Your task to perform on an android device: delete browsing data in the chrome app Image 0: 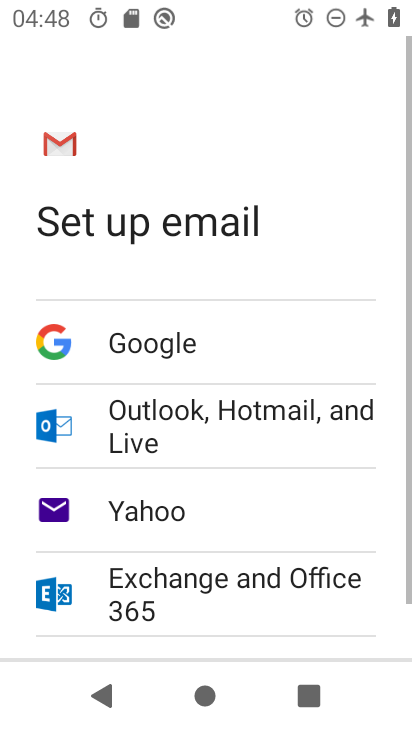
Step 0: press back button
Your task to perform on an android device: delete browsing data in the chrome app Image 1: 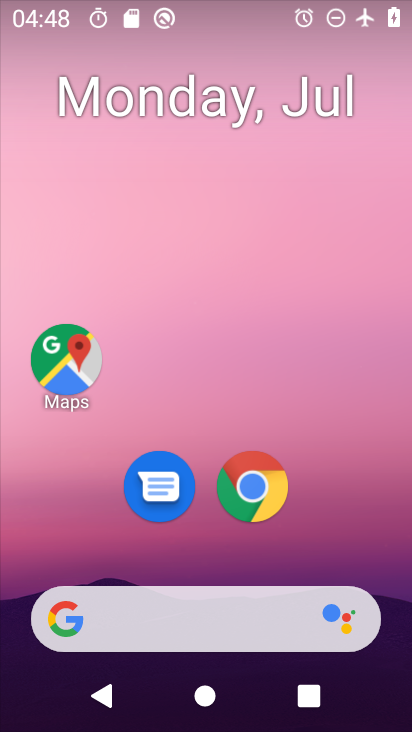
Step 1: click (250, 483)
Your task to perform on an android device: delete browsing data in the chrome app Image 2: 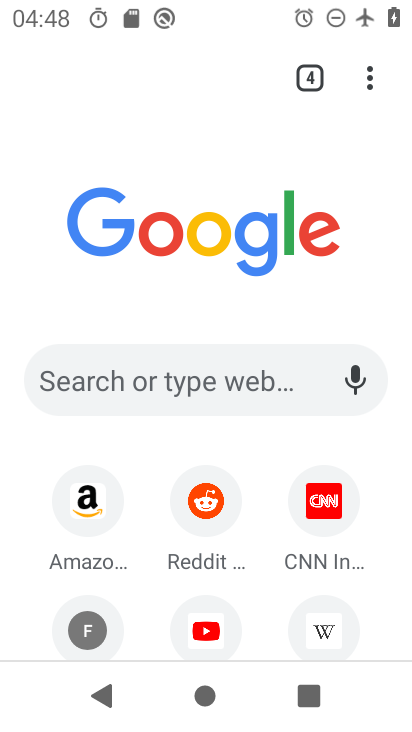
Step 2: drag from (366, 76) to (125, 442)
Your task to perform on an android device: delete browsing data in the chrome app Image 3: 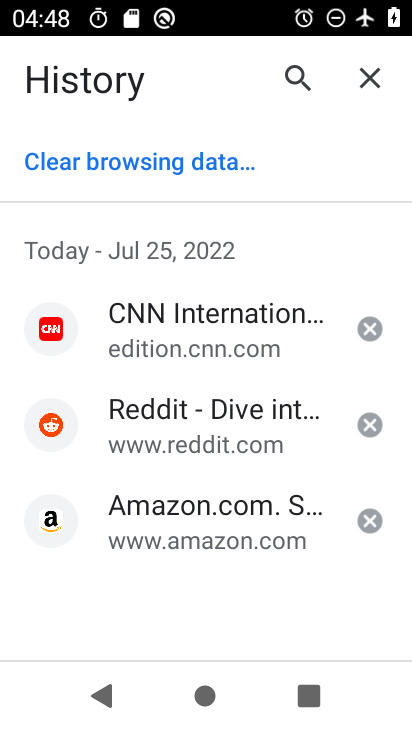
Step 3: click (103, 172)
Your task to perform on an android device: delete browsing data in the chrome app Image 4: 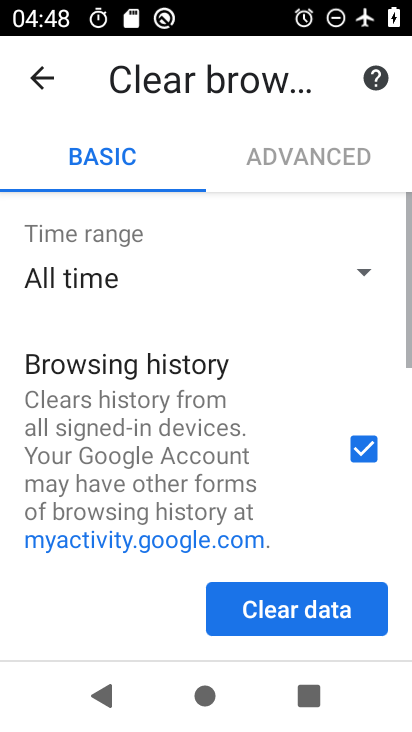
Step 4: drag from (269, 522) to (326, 166)
Your task to perform on an android device: delete browsing data in the chrome app Image 5: 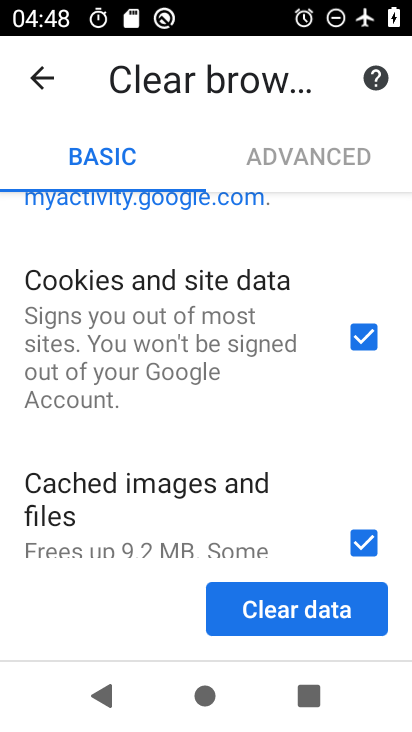
Step 5: click (278, 605)
Your task to perform on an android device: delete browsing data in the chrome app Image 6: 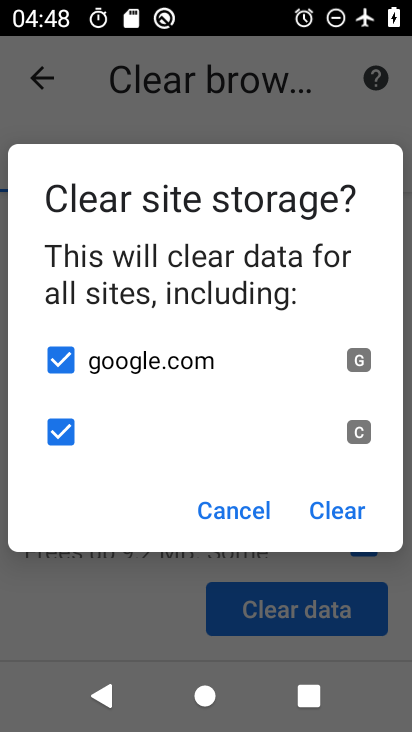
Step 6: click (352, 501)
Your task to perform on an android device: delete browsing data in the chrome app Image 7: 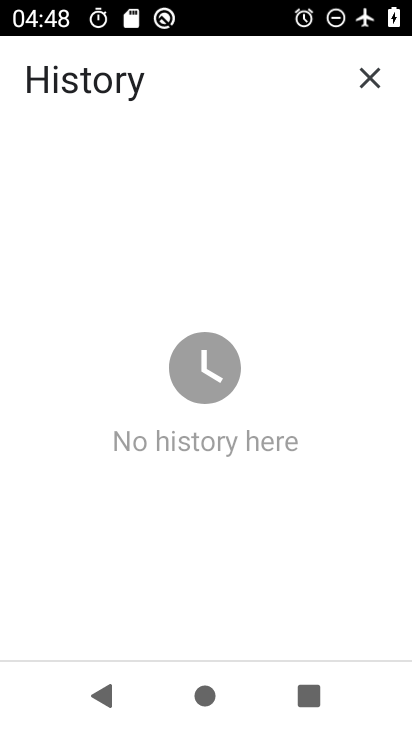
Step 7: task complete